Your task to perform on an android device: install app "Google Photos" Image 0: 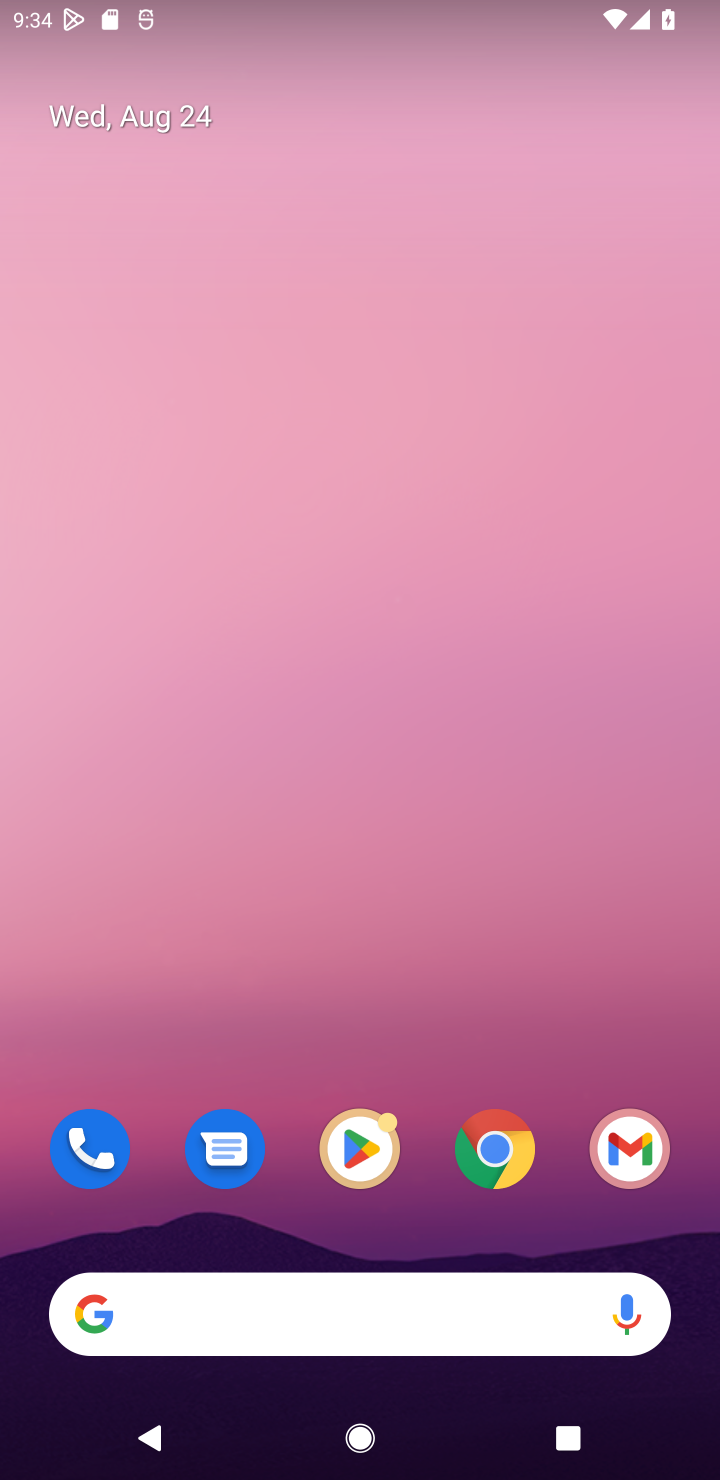
Step 0: drag from (385, 1215) to (280, 21)
Your task to perform on an android device: install app "Google Photos" Image 1: 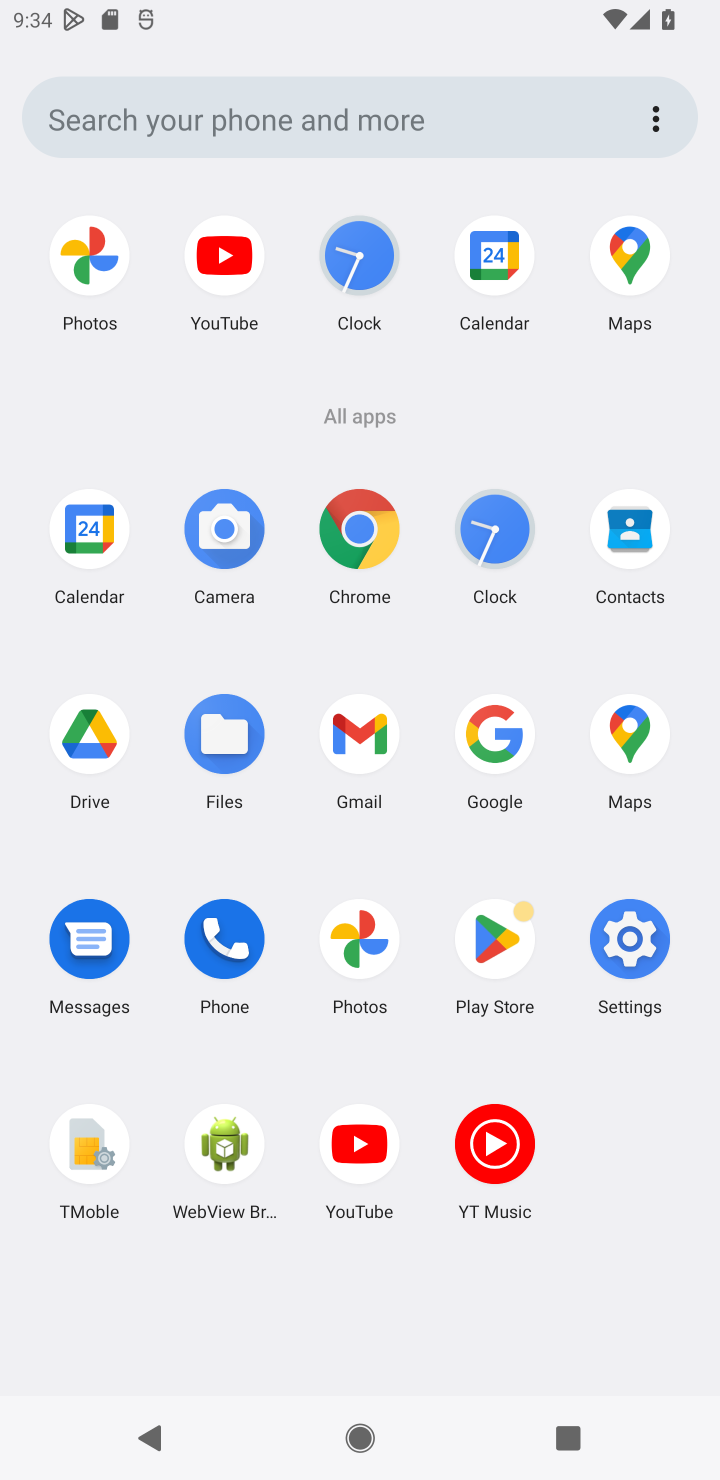
Step 1: click (511, 940)
Your task to perform on an android device: install app "Google Photos" Image 2: 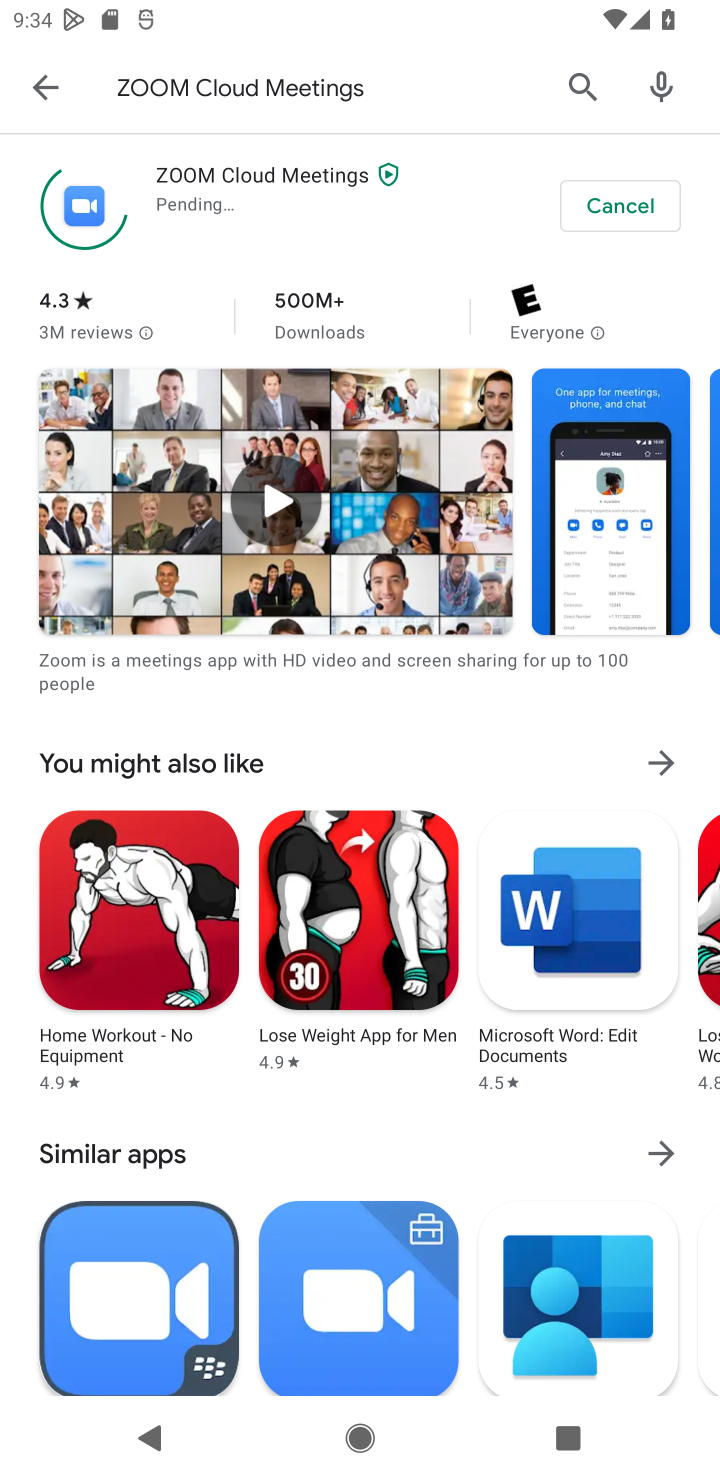
Step 2: press back button
Your task to perform on an android device: install app "Google Photos" Image 3: 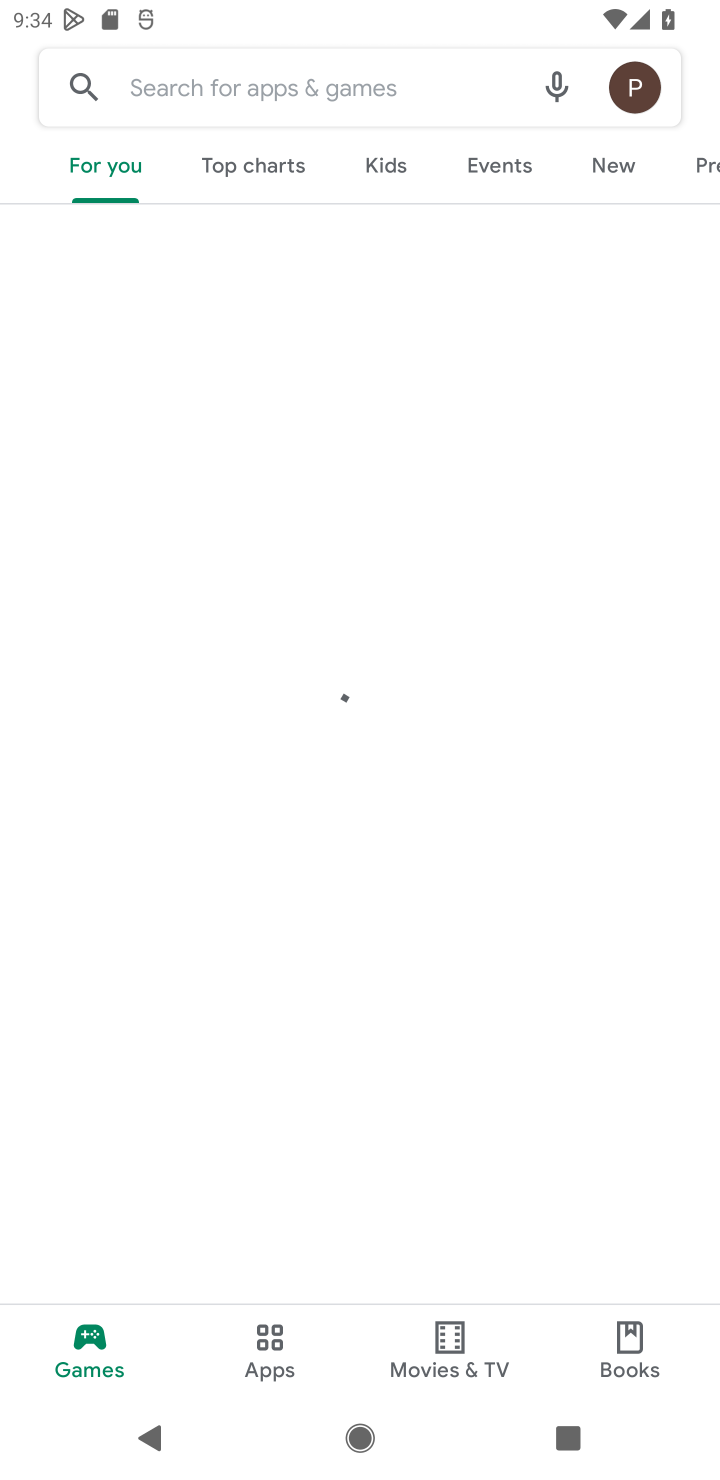
Step 3: click (200, 75)
Your task to perform on an android device: install app "Google Photos" Image 4: 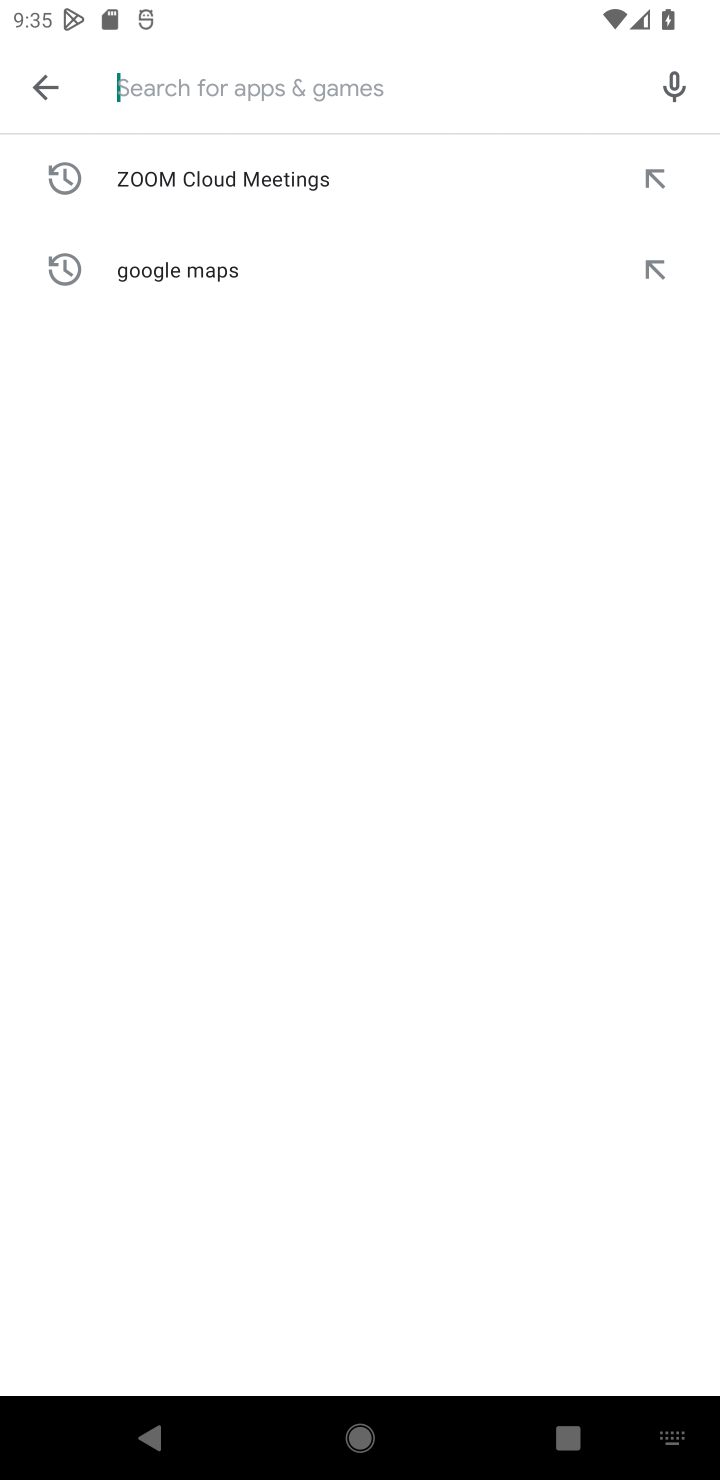
Step 4: type "Google Photos"
Your task to perform on an android device: install app "Google Photos" Image 5: 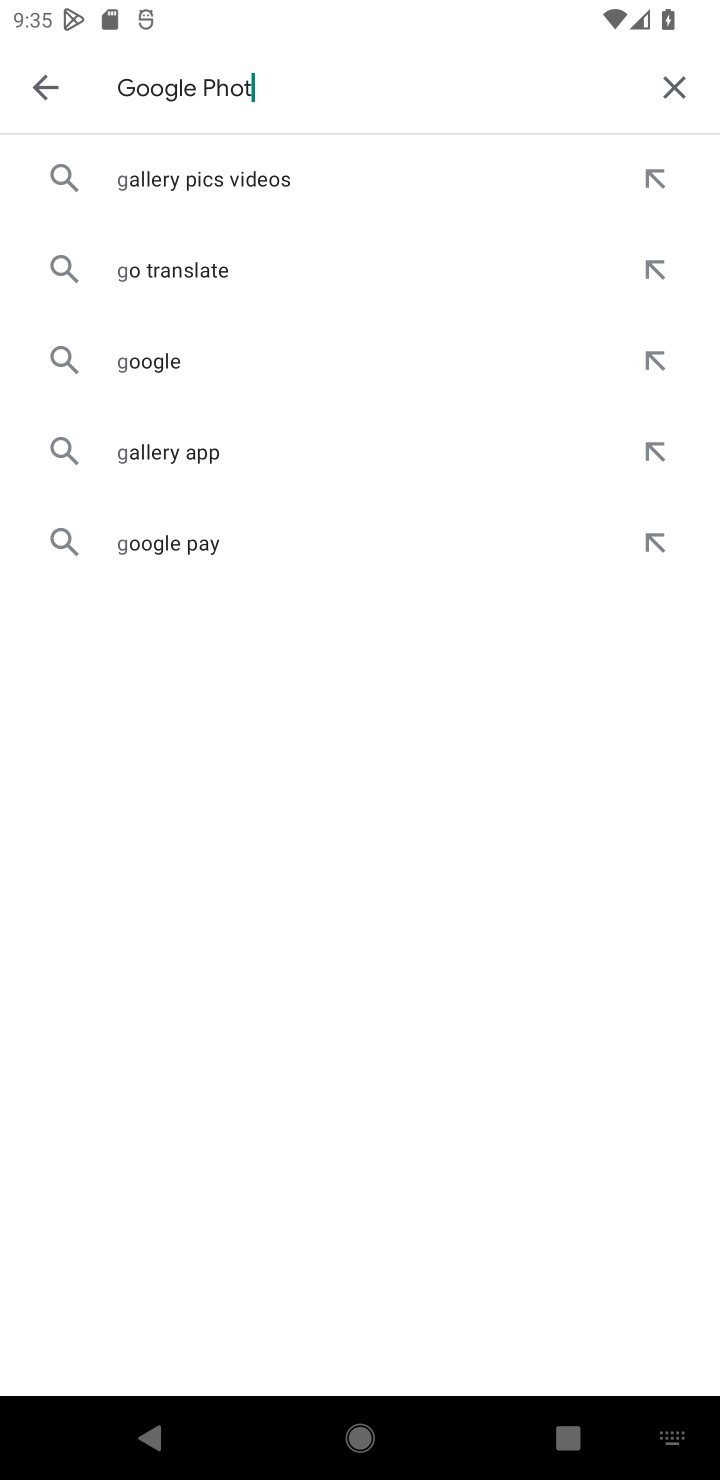
Step 5: press enter
Your task to perform on an android device: install app "Google Photos" Image 6: 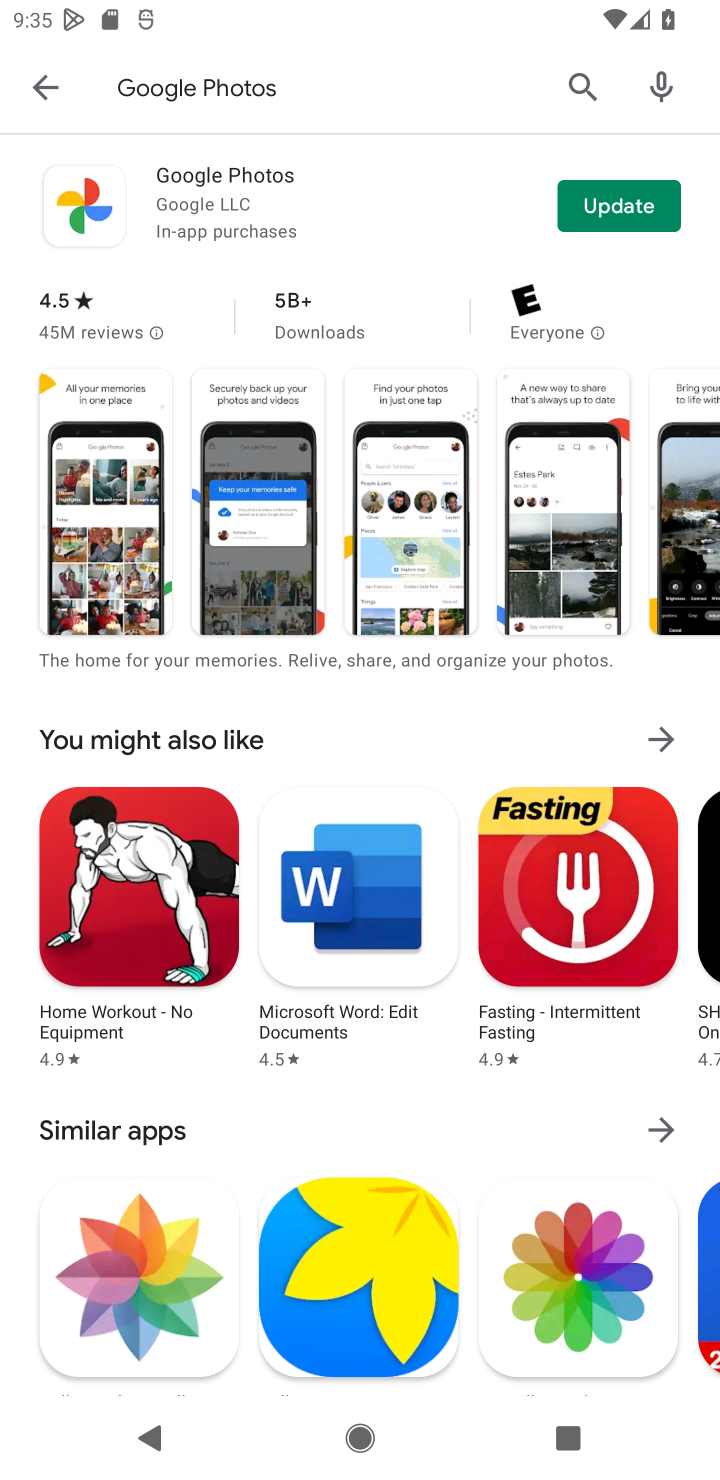
Step 6: click (630, 212)
Your task to perform on an android device: install app "Google Photos" Image 7: 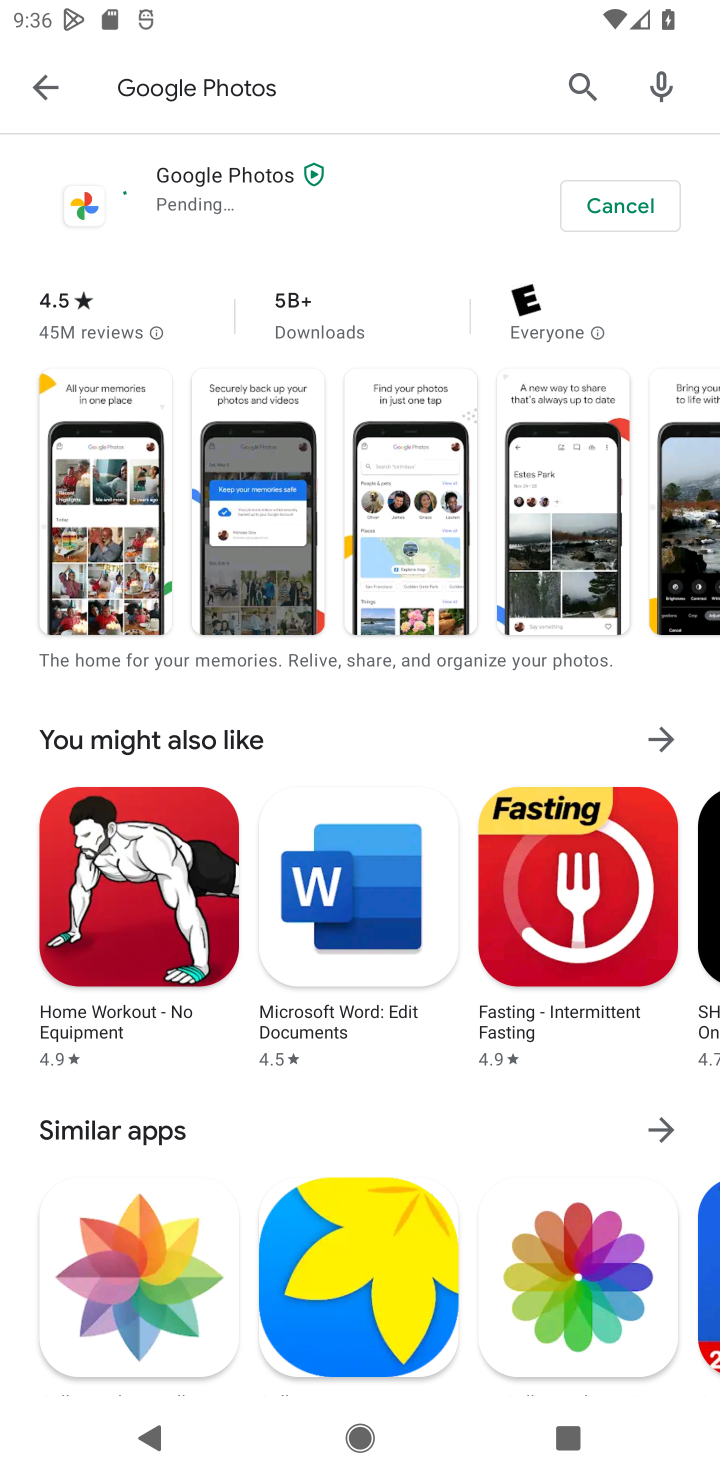
Step 7: task complete